Your task to perform on an android device: toggle sleep mode Image 0: 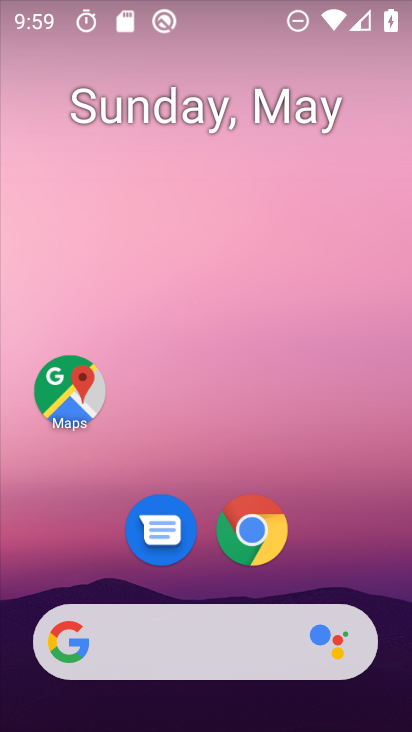
Step 0: press home button
Your task to perform on an android device: toggle sleep mode Image 1: 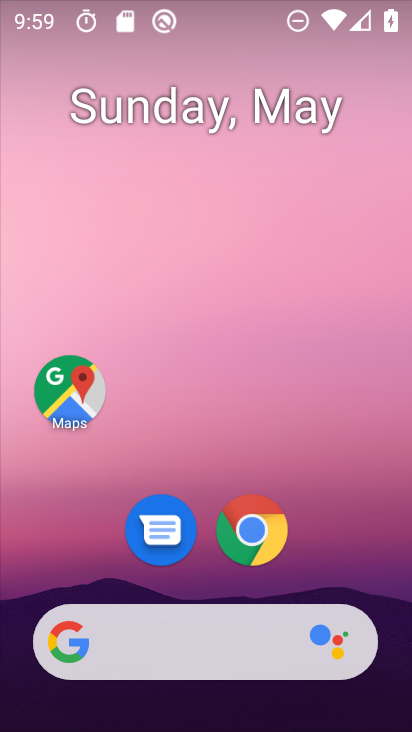
Step 1: drag from (264, 661) to (172, 58)
Your task to perform on an android device: toggle sleep mode Image 2: 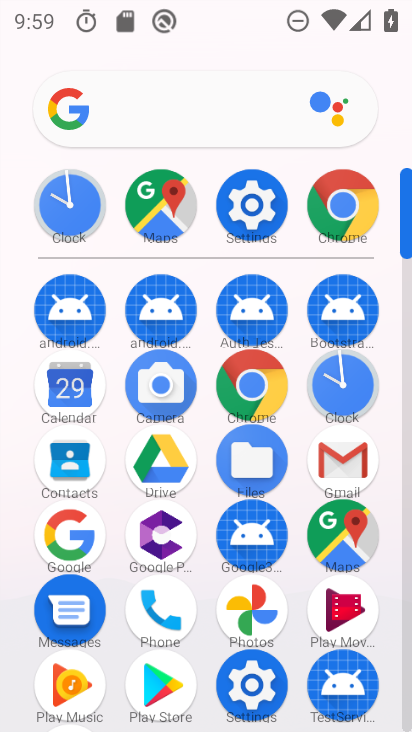
Step 2: click (242, 206)
Your task to perform on an android device: toggle sleep mode Image 3: 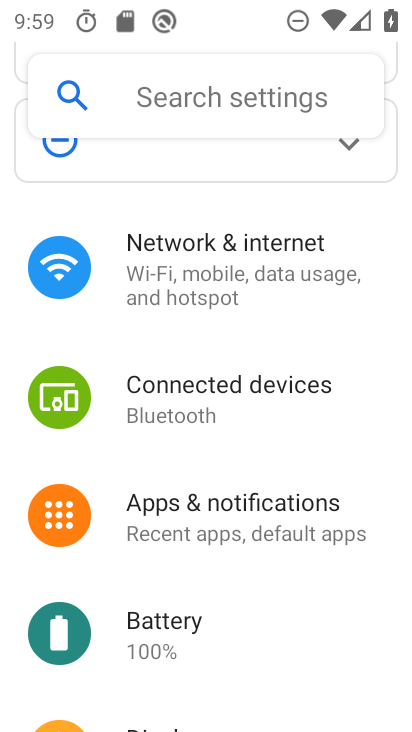
Step 3: click (174, 93)
Your task to perform on an android device: toggle sleep mode Image 4: 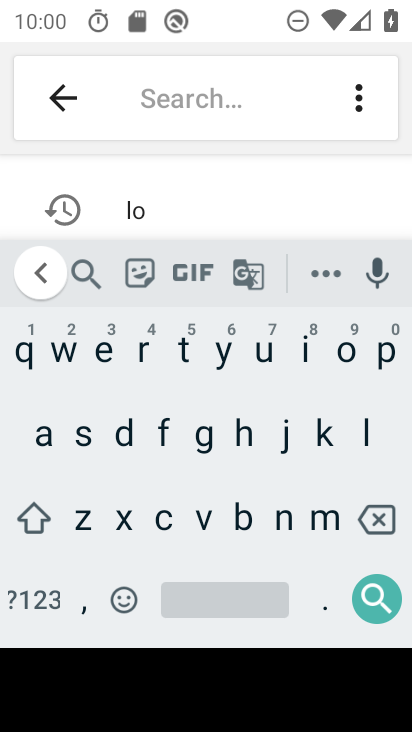
Step 4: click (71, 435)
Your task to perform on an android device: toggle sleep mode Image 5: 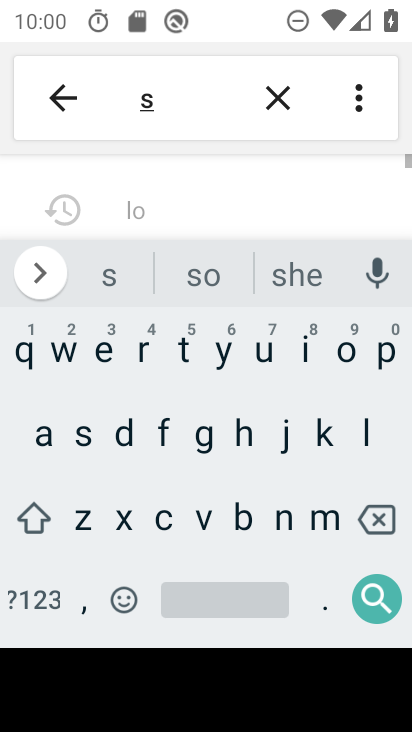
Step 5: click (368, 454)
Your task to perform on an android device: toggle sleep mode Image 6: 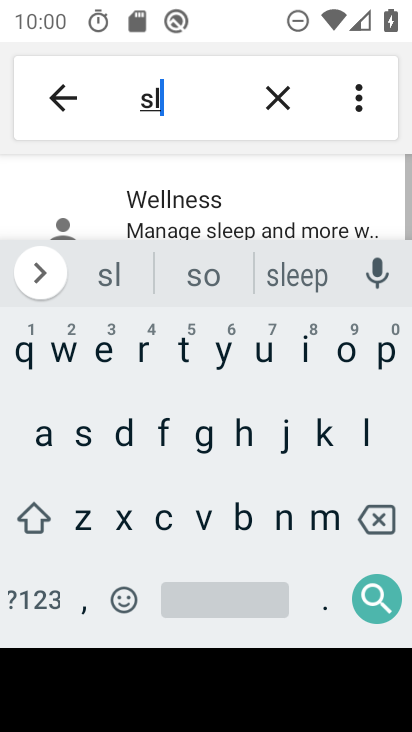
Step 6: click (107, 359)
Your task to perform on an android device: toggle sleep mode Image 7: 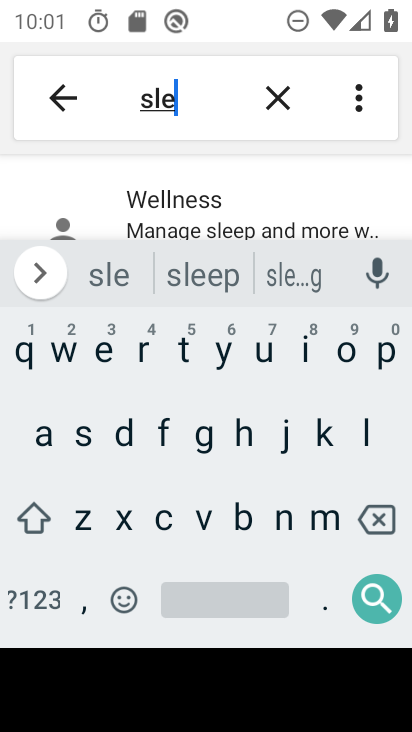
Step 7: click (170, 192)
Your task to perform on an android device: toggle sleep mode Image 8: 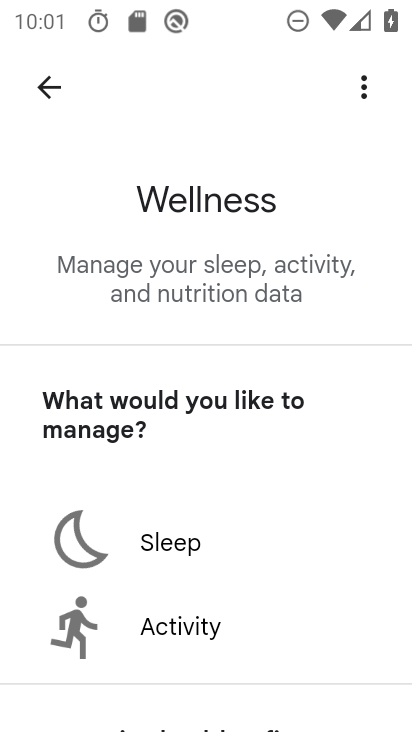
Step 8: click (190, 534)
Your task to perform on an android device: toggle sleep mode Image 9: 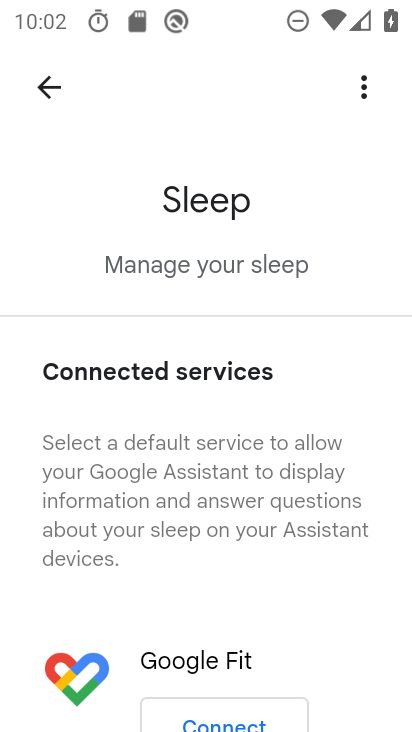
Step 9: task complete